Your task to perform on an android device: turn on showing notifications on the lock screen Image 0: 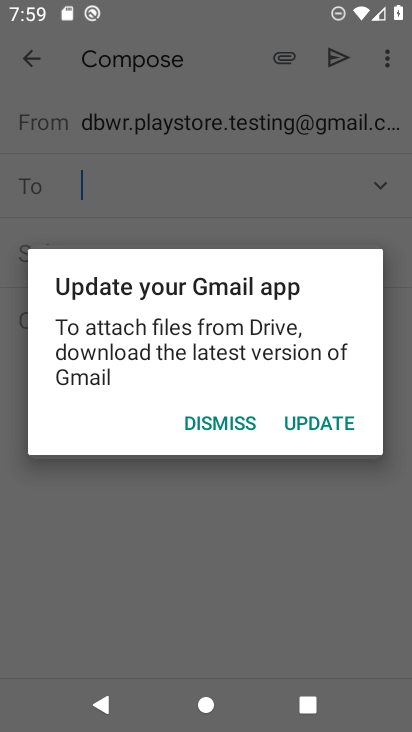
Step 0: press home button
Your task to perform on an android device: turn on showing notifications on the lock screen Image 1: 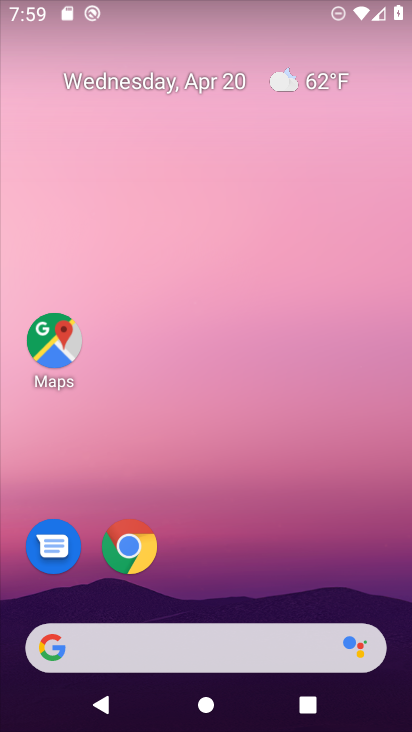
Step 1: drag from (236, 565) to (312, 61)
Your task to perform on an android device: turn on showing notifications on the lock screen Image 2: 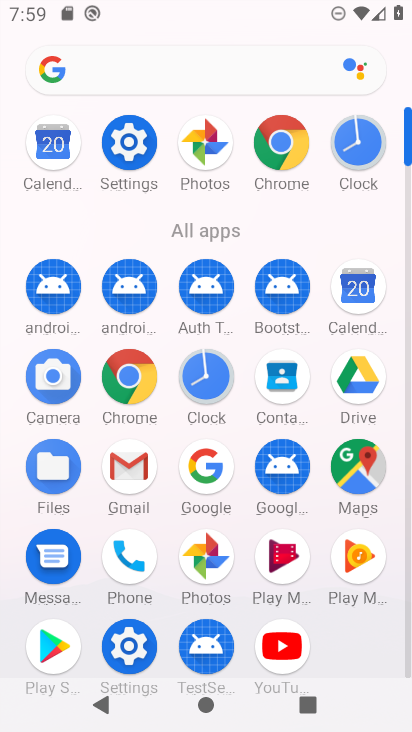
Step 2: click (122, 139)
Your task to perform on an android device: turn on showing notifications on the lock screen Image 3: 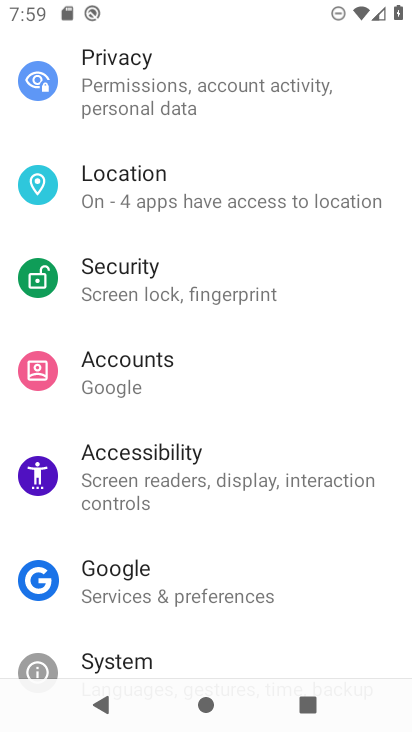
Step 3: drag from (208, 150) to (228, 591)
Your task to perform on an android device: turn on showing notifications on the lock screen Image 4: 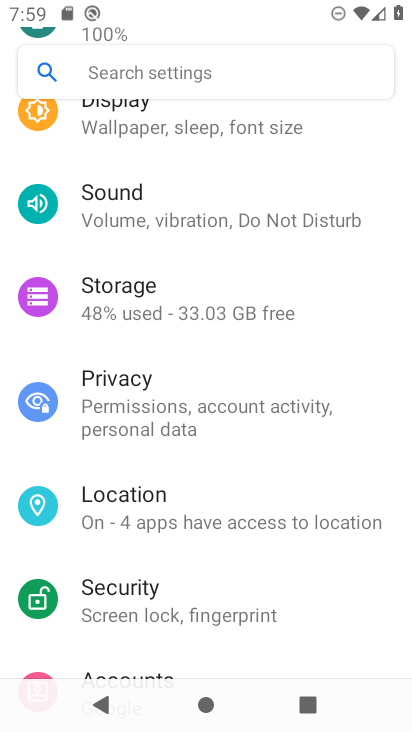
Step 4: drag from (234, 184) to (227, 614)
Your task to perform on an android device: turn on showing notifications on the lock screen Image 5: 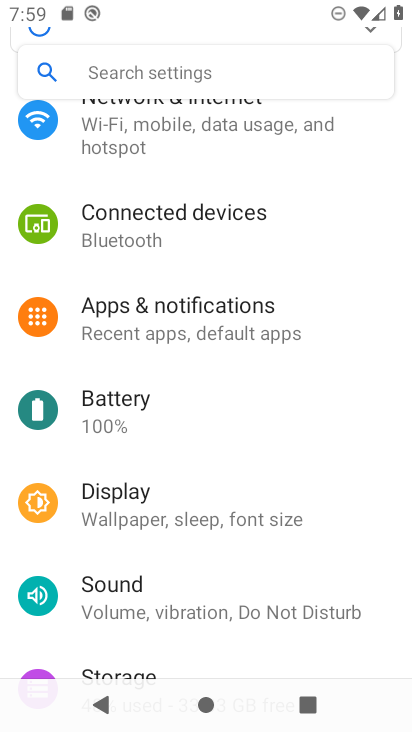
Step 5: click (248, 314)
Your task to perform on an android device: turn on showing notifications on the lock screen Image 6: 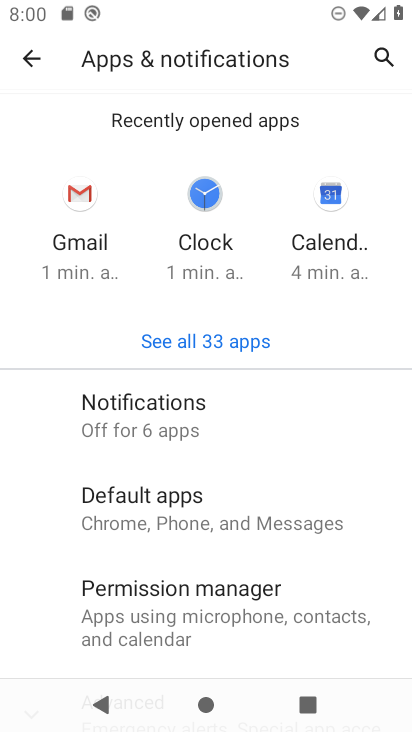
Step 6: click (213, 424)
Your task to perform on an android device: turn on showing notifications on the lock screen Image 7: 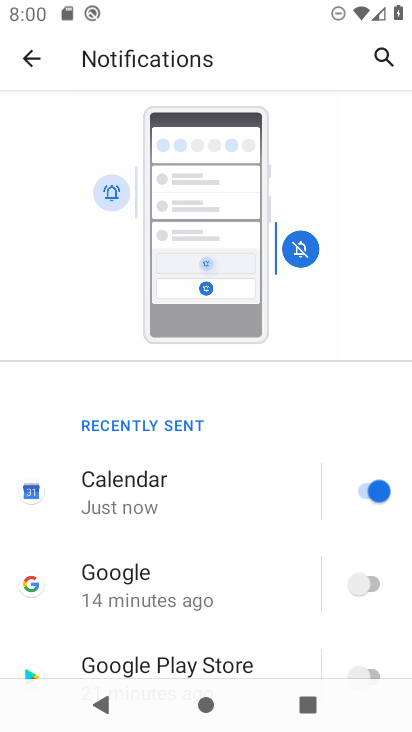
Step 7: drag from (211, 558) to (258, 107)
Your task to perform on an android device: turn on showing notifications on the lock screen Image 8: 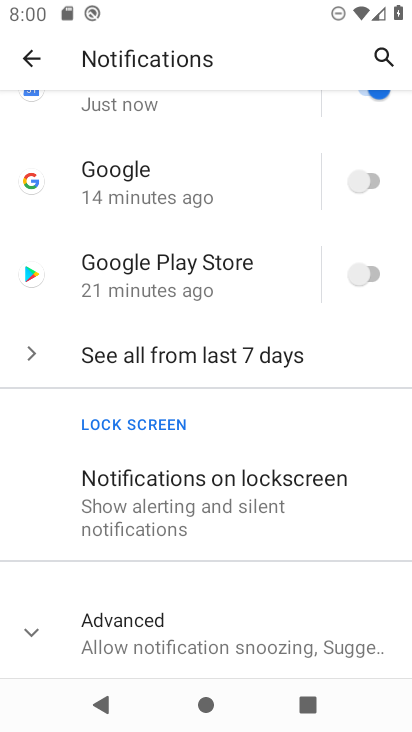
Step 8: click (309, 497)
Your task to perform on an android device: turn on showing notifications on the lock screen Image 9: 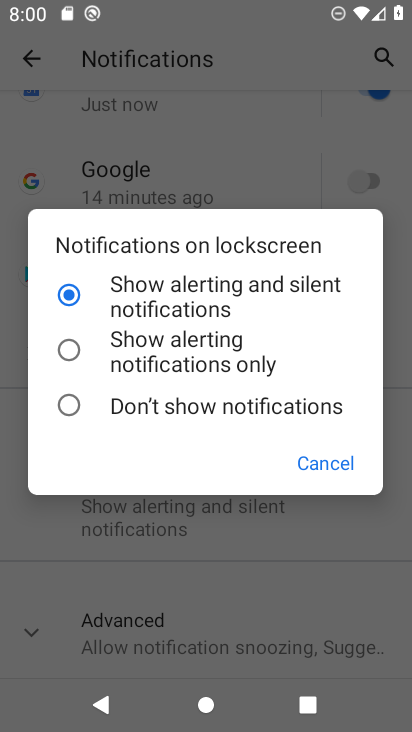
Step 9: click (320, 461)
Your task to perform on an android device: turn on showing notifications on the lock screen Image 10: 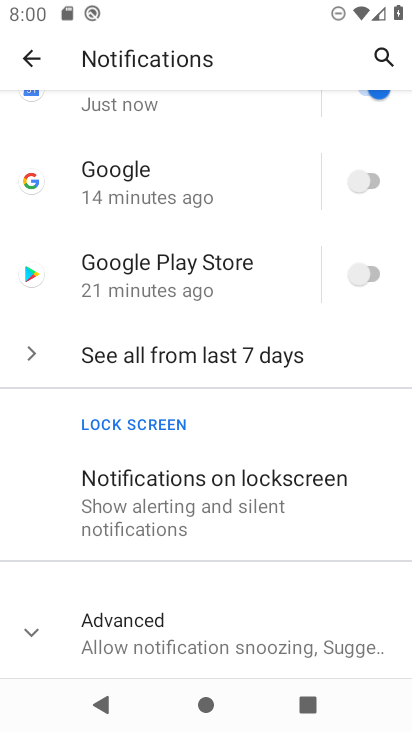
Step 10: task complete